Your task to perform on an android device: turn on showing notifications on the lock screen Image 0: 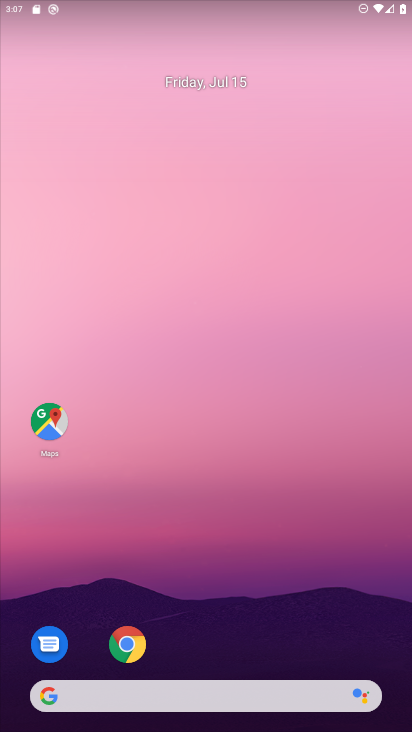
Step 0: drag from (54, 487) to (217, 74)
Your task to perform on an android device: turn on showing notifications on the lock screen Image 1: 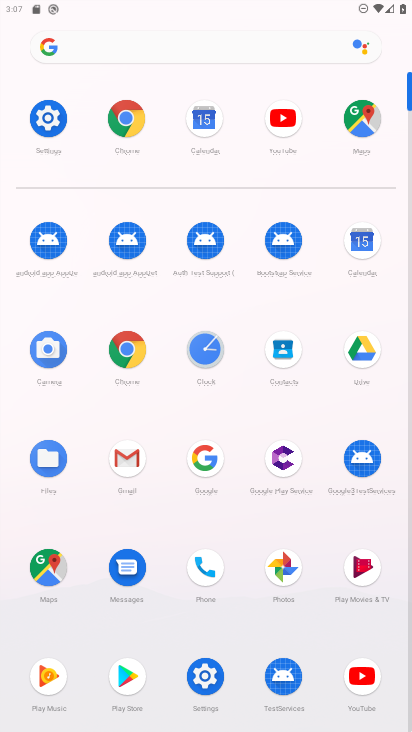
Step 1: click (41, 117)
Your task to perform on an android device: turn on showing notifications on the lock screen Image 2: 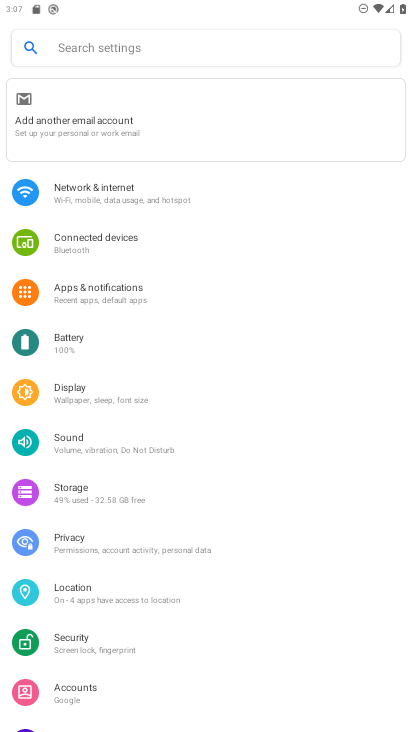
Step 2: click (167, 297)
Your task to perform on an android device: turn on showing notifications on the lock screen Image 3: 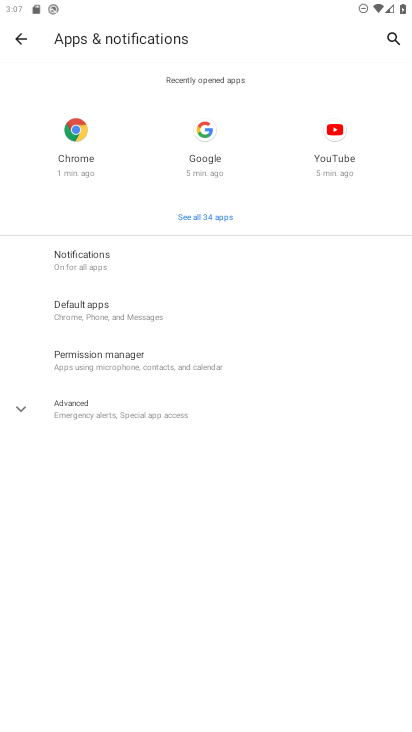
Step 3: click (74, 257)
Your task to perform on an android device: turn on showing notifications on the lock screen Image 4: 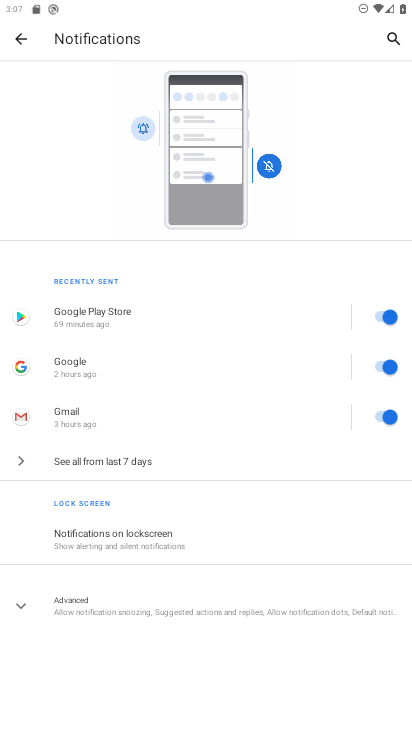
Step 4: click (132, 551)
Your task to perform on an android device: turn on showing notifications on the lock screen Image 5: 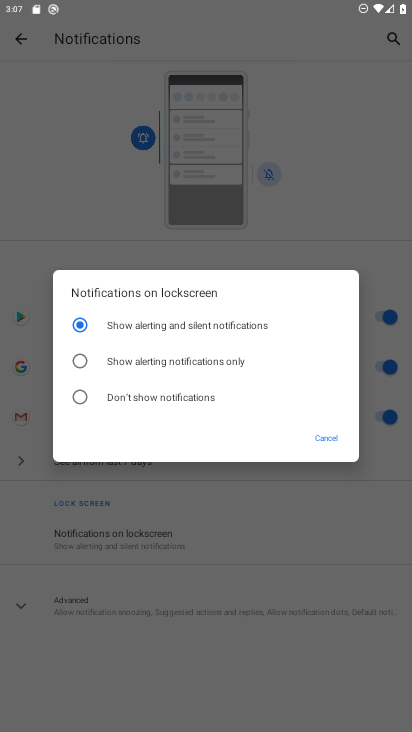
Step 5: task complete